Your task to perform on an android device: toggle show notifications on the lock screen Image 0: 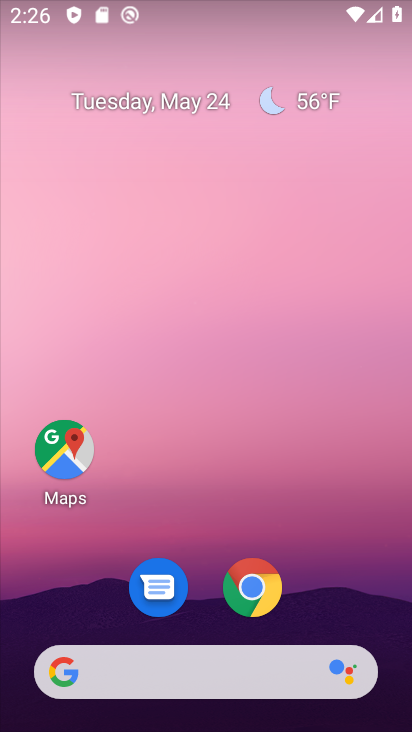
Step 0: drag from (195, 626) to (216, 104)
Your task to perform on an android device: toggle show notifications on the lock screen Image 1: 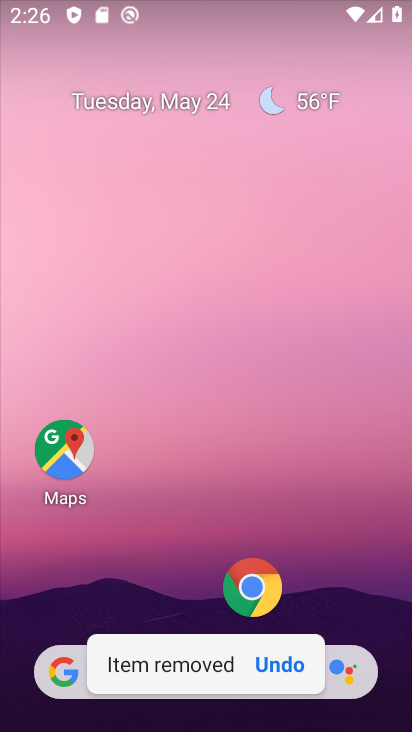
Step 1: click (283, 668)
Your task to perform on an android device: toggle show notifications on the lock screen Image 2: 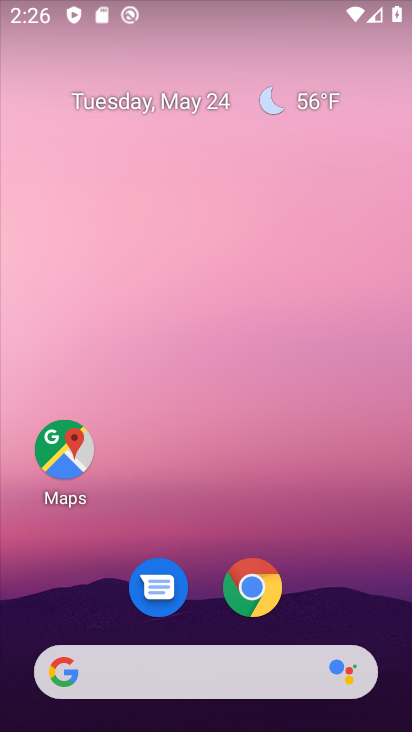
Step 2: drag from (203, 627) to (189, 153)
Your task to perform on an android device: toggle show notifications on the lock screen Image 3: 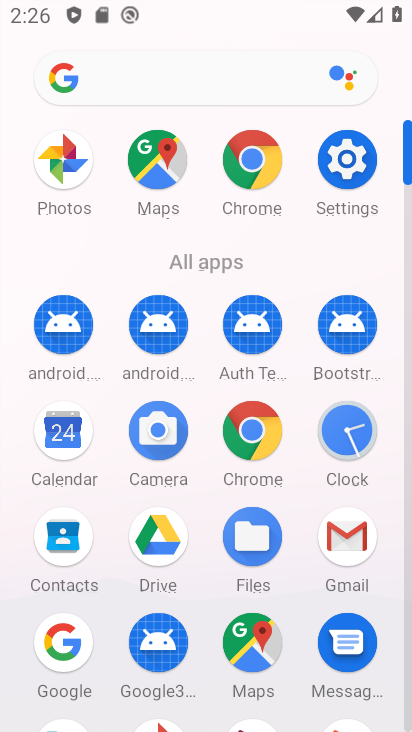
Step 3: click (346, 181)
Your task to perform on an android device: toggle show notifications on the lock screen Image 4: 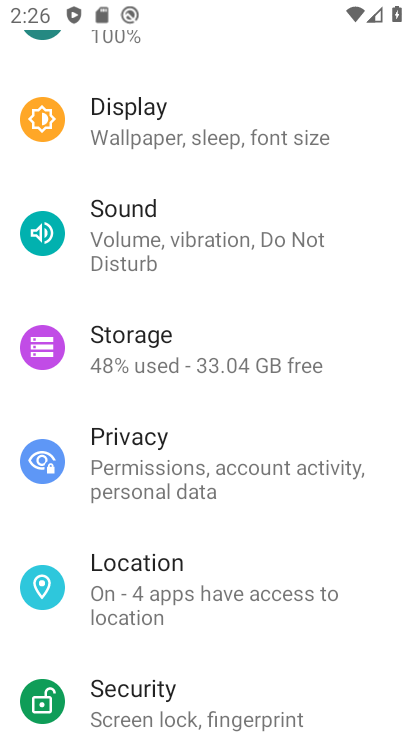
Step 4: drag from (193, 114) to (234, 622)
Your task to perform on an android device: toggle show notifications on the lock screen Image 5: 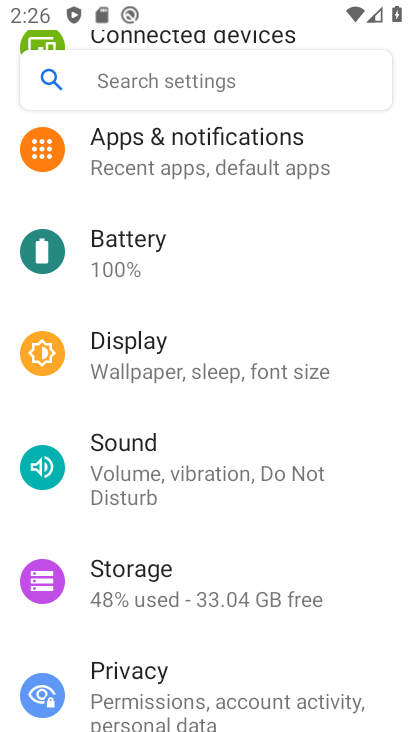
Step 5: drag from (217, 167) to (290, 572)
Your task to perform on an android device: toggle show notifications on the lock screen Image 6: 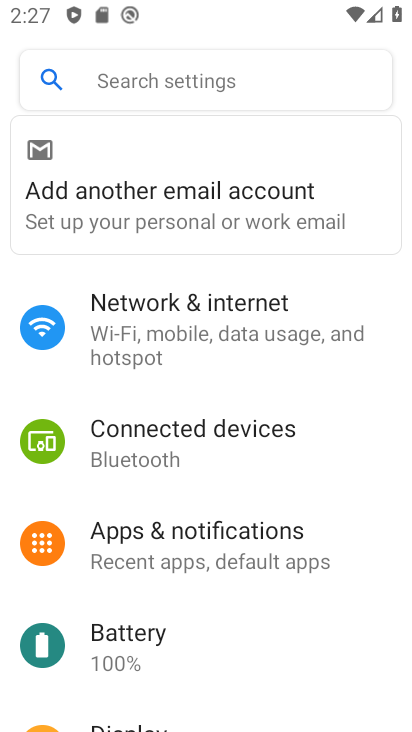
Step 6: click (174, 561)
Your task to perform on an android device: toggle show notifications on the lock screen Image 7: 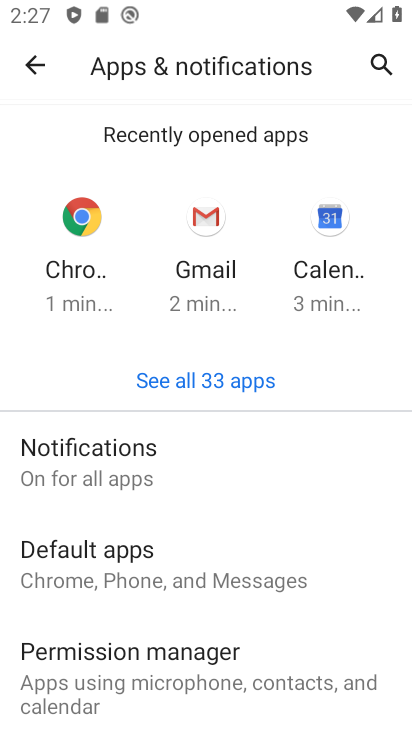
Step 7: click (179, 489)
Your task to perform on an android device: toggle show notifications on the lock screen Image 8: 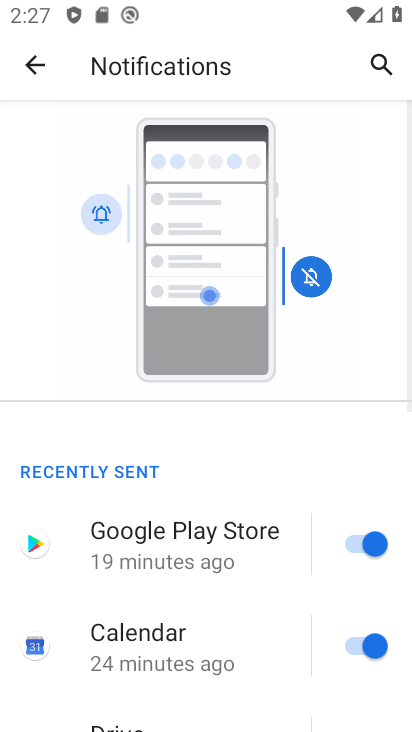
Step 8: drag from (135, 653) to (301, 81)
Your task to perform on an android device: toggle show notifications on the lock screen Image 9: 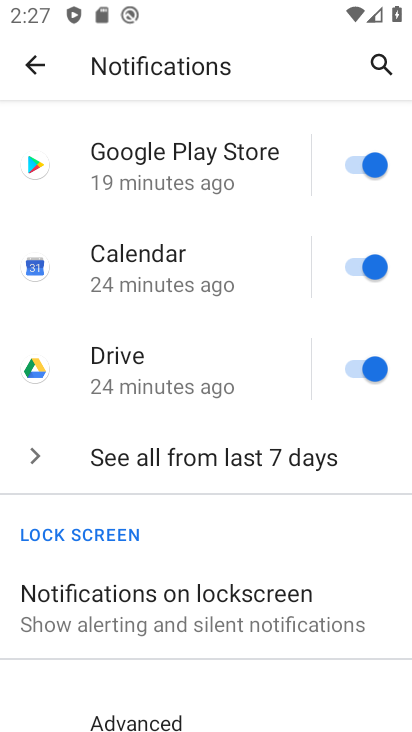
Step 9: click (179, 641)
Your task to perform on an android device: toggle show notifications on the lock screen Image 10: 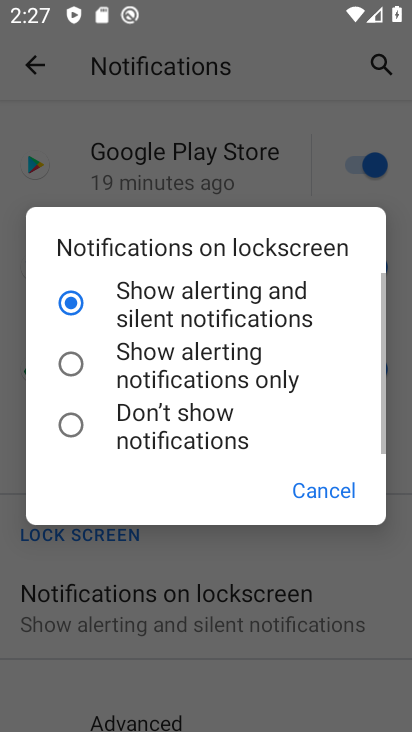
Step 10: click (236, 392)
Your task to perform on an android device: toggle show notifications on the lock screen Image 11: 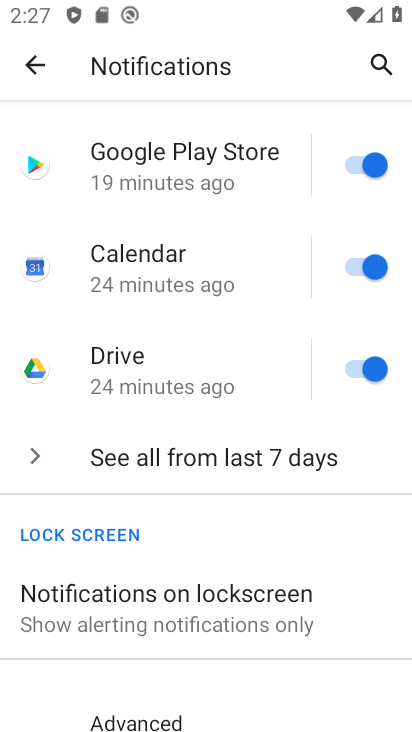
Step 11: task complete